Your task to perform on an android device: Play the last video I watched on Youtube Image 0: 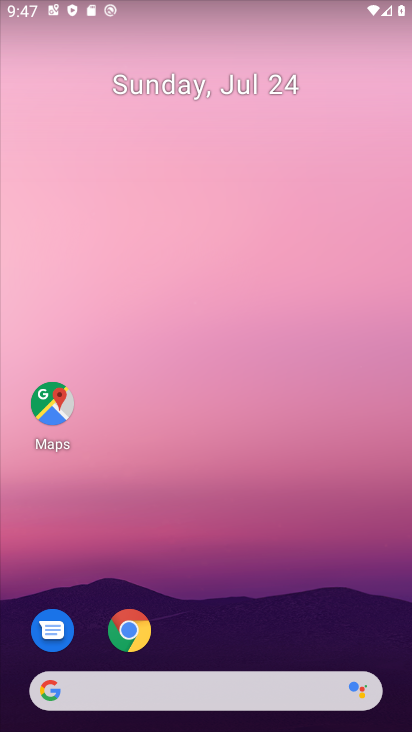
Step 0: drag from (193, 632) to (165, 90)
Your task to perform on an android device: Play the last video I watched on Youtube Image 1: 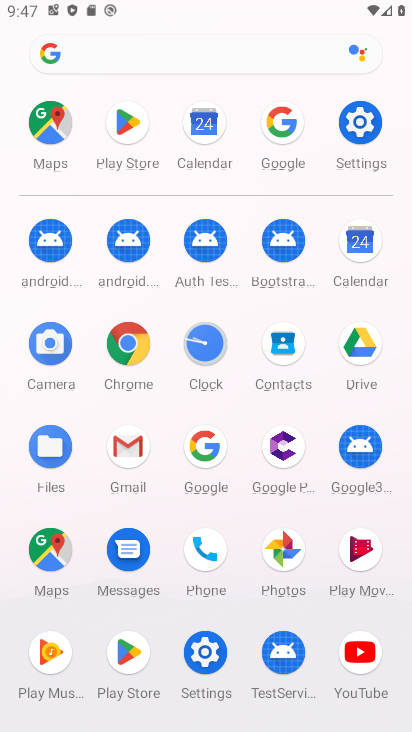
Step 1: click (339, 661)
Your task to perform on an android device: Play the last video I watched on Youtube Image 2: 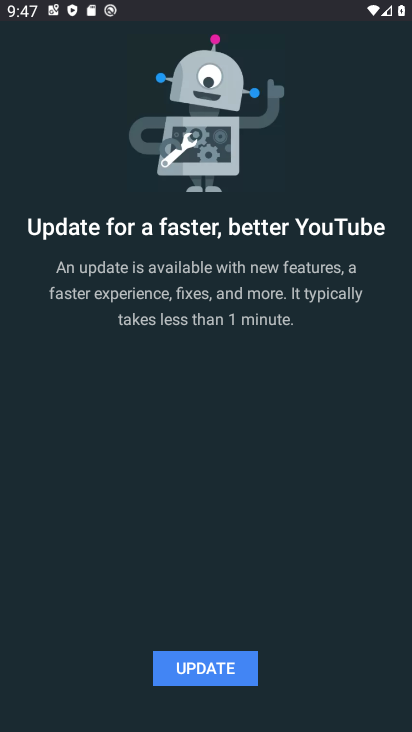
Step 2: drag from (209, 664) to (122, 664)
Your task to perform on an android device: Play the last video I watched on Youtube Image 3: 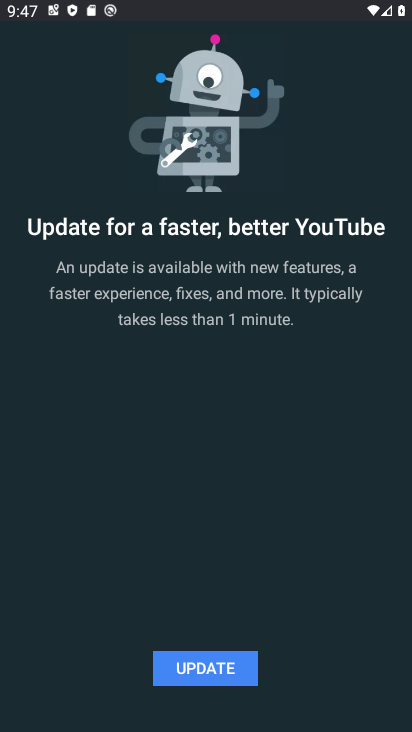
Step 3: click (175, 666)
Your task to perform on an android device: Play the last video I watched on Youtube Image 4: 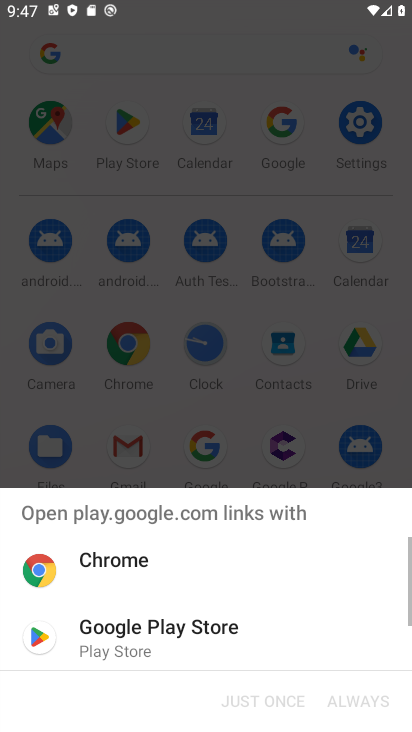
Step 4: click (152, 653)
Your task to perform on an android device: Play the last video I watched on Youtube Image 5: 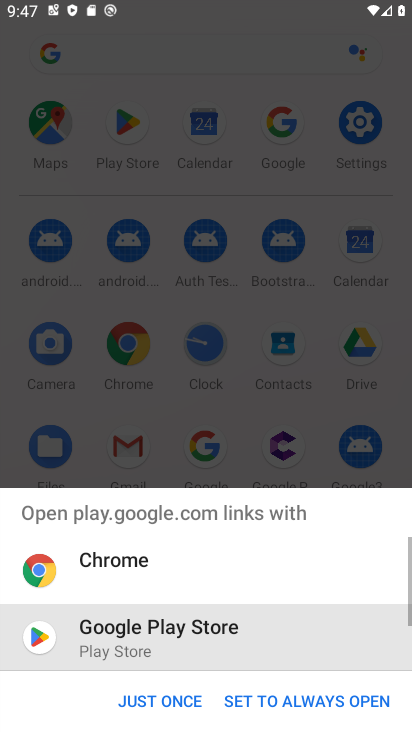
Step 5: click (182, 698)
Your task to perform on an android device: Play the last video I watched on Youtube Image 6: 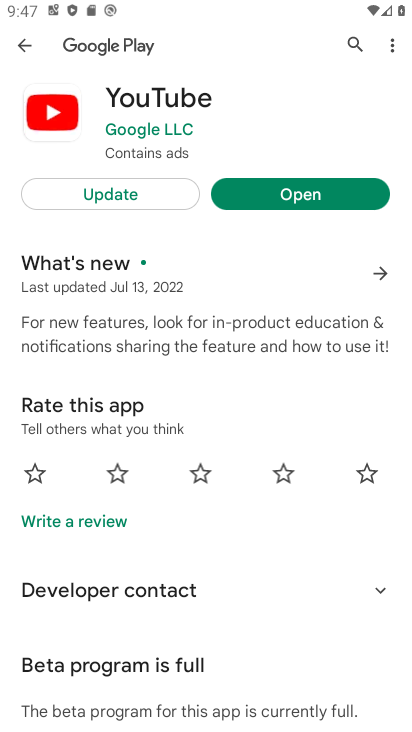
Step 6: click (262, 192)
Your task to perform on an android device: Play the last video I watched on Youtube Image 7: 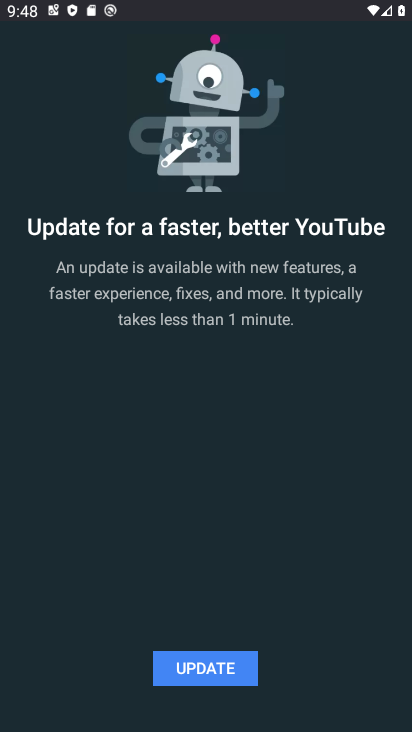
Step 7: click (220, 673)
Your task to perform on an android device: Play the last video I watched on Youtube Image 8: 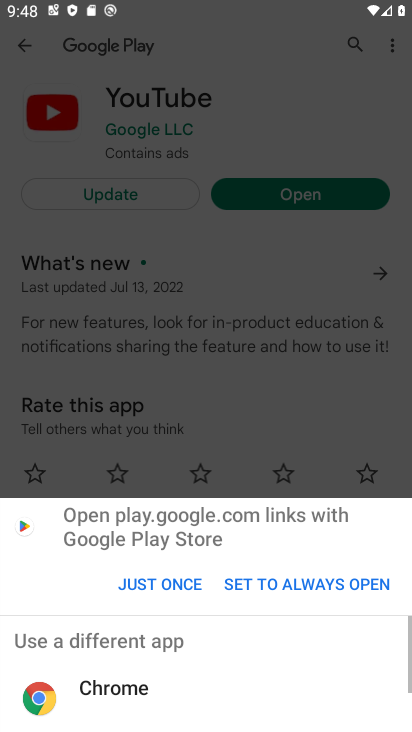
Step 8: click (140, 581)
Your task to perform on an android device: Play the last video I watched on Youtube Image 9: 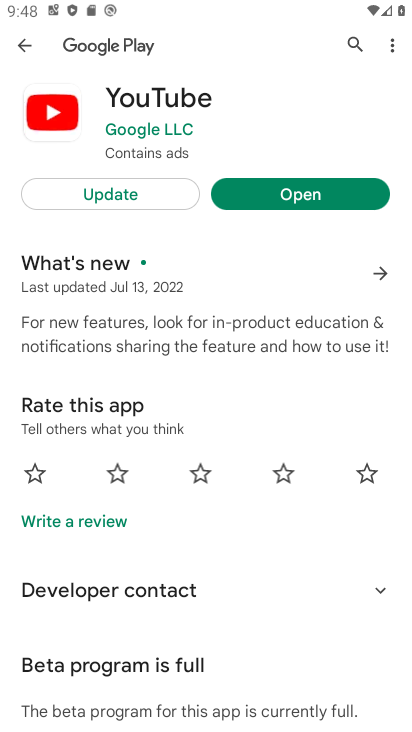
Step 9: click (74, 184)
Your task to perform on an android device: Play the last video I watched on Youtube Image 10: 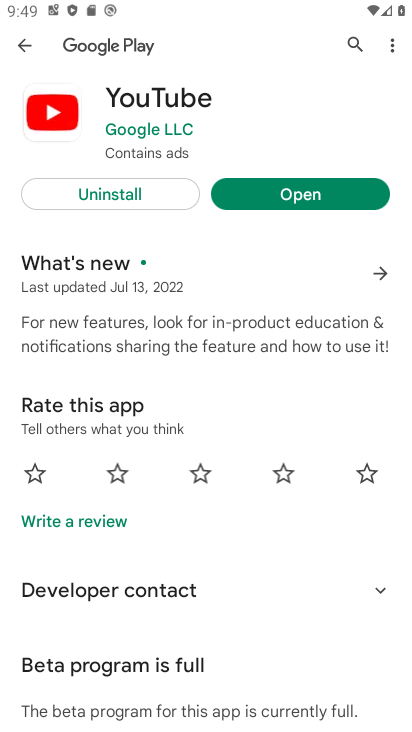
Step 10: click (279, 204)
Your task to perform on an android device: Play the last video I watched on Youtube Image 11: 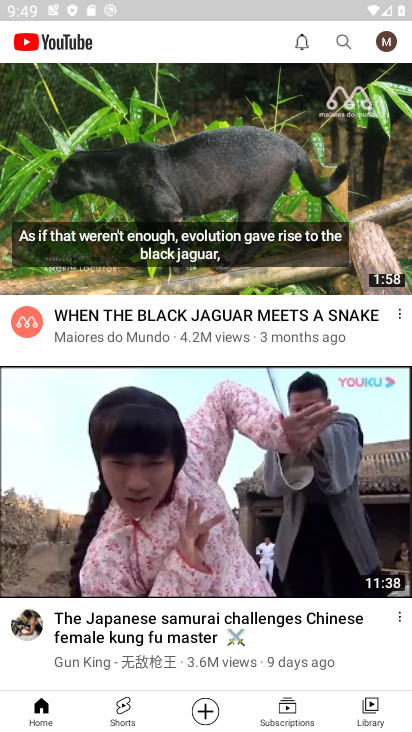
Step 11: click (372, 698)
Your task to perform on an android device: Play the last video I watched on Youtube Image 12: 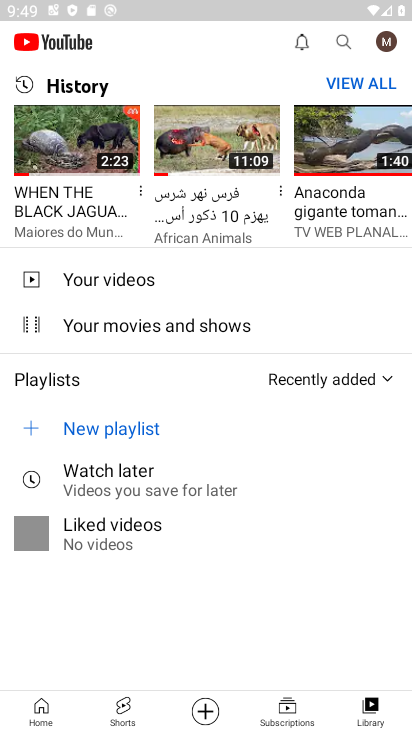
Step 12: click (63, 160)
Your task to perform on an android device: Play the last video I watched on Youtube Image 13: 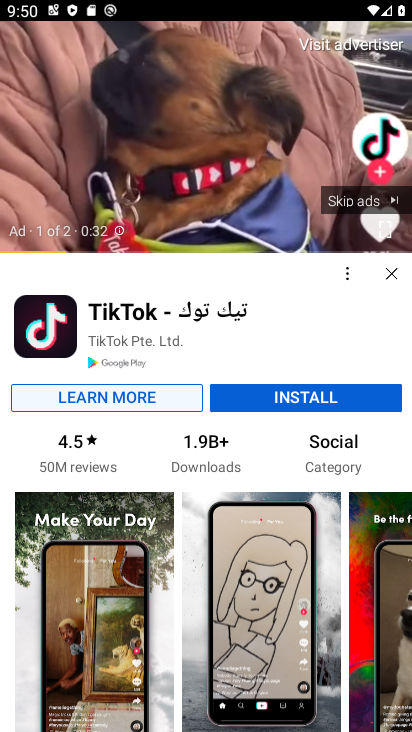
Step 13: click (193, 169)
Your task to perform on an android device: Play the last video I watched on Youtube Image 14: 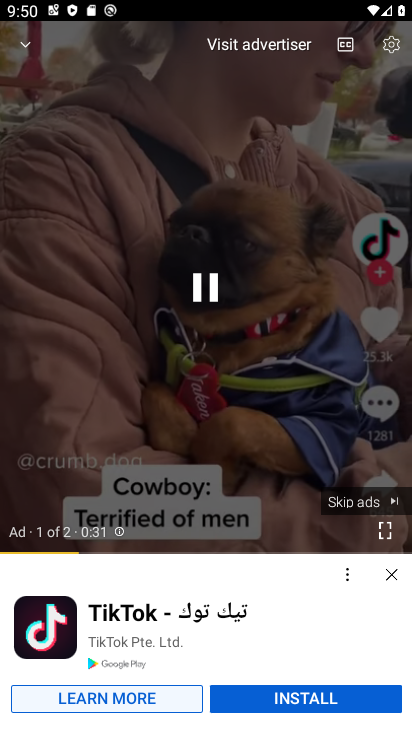
Step 14: click (219, 139)
Your task to perform on an android device: Play the last video I watched on Youtube Image 15: 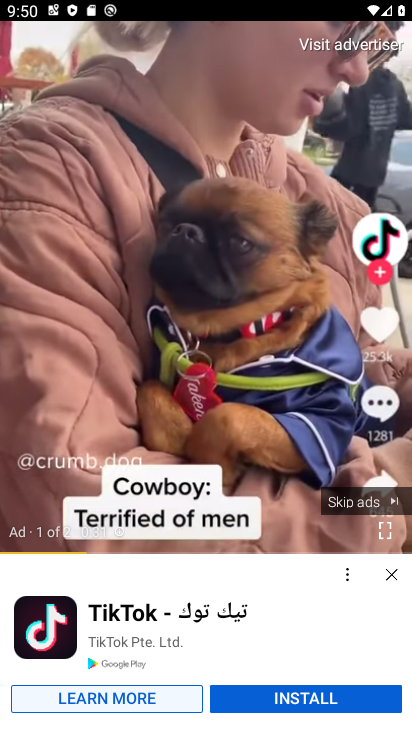
Step 15: click (195, 274)
Your task to perform on an android device: Play the last video I watched on Youtube Image 16: 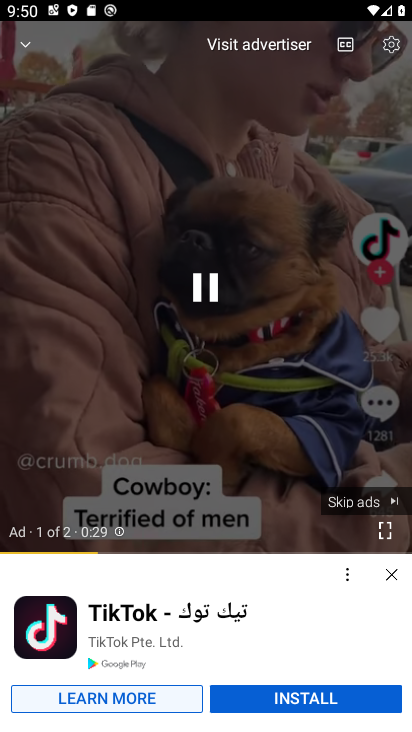
Step 16: click (199, 296)
Your task to perform on an android device: Play the last video I watched on Youtube Image 17: 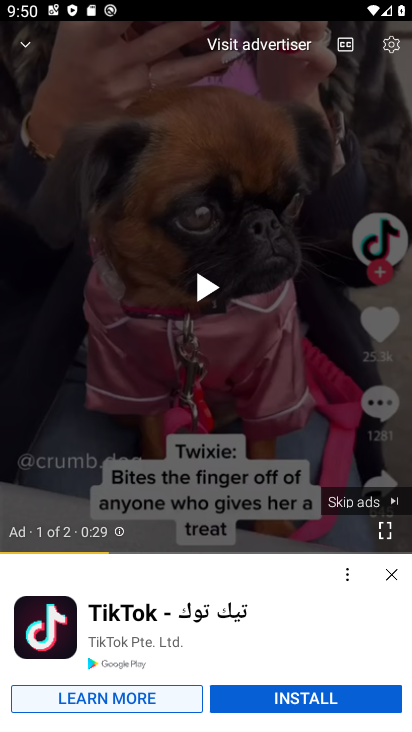
Step 17: task complete